Your task to perform on an android device: search for starred emails in the gmail app Image 0: 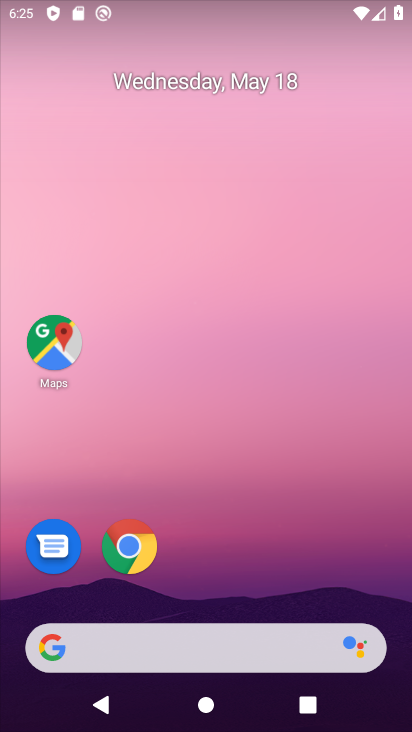
Step 0: drag from (297, 585) to (284, 128)
Your task to perform on an android device: search for starred emails in the gmail app Image 1: 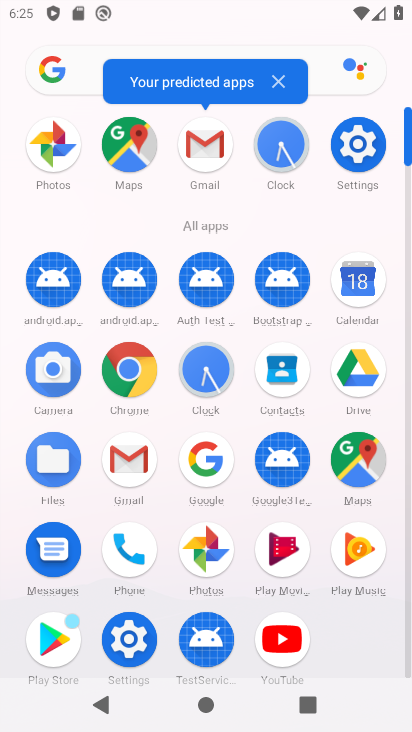
Step 1: click (129, 452)
Your task to perform on an android device: search for starred emails in the gmail app Image 2: 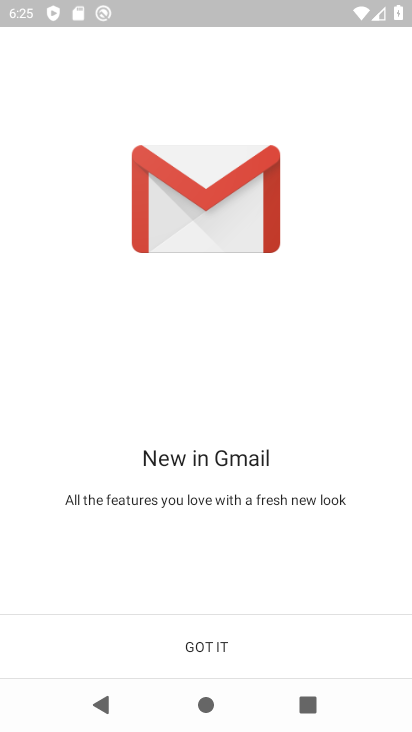
Step 2: click (244, 642)
Your task to perform on an android device: search for starred emails in the gmail app Image 3: 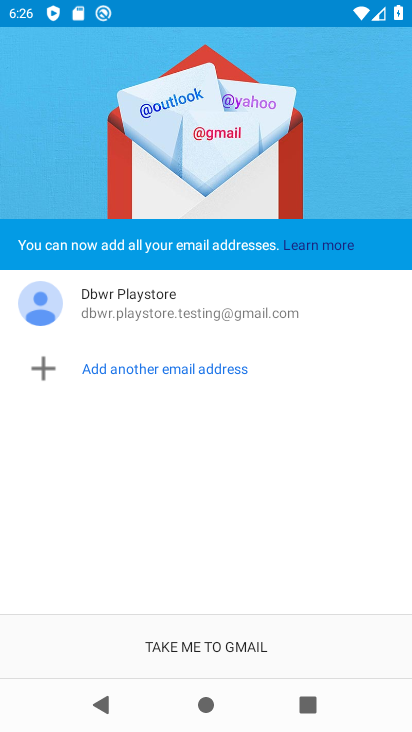
Step 3: click (244, 642)
Your task to perform on an android device: search for starred emails in the gmail app Image 4: 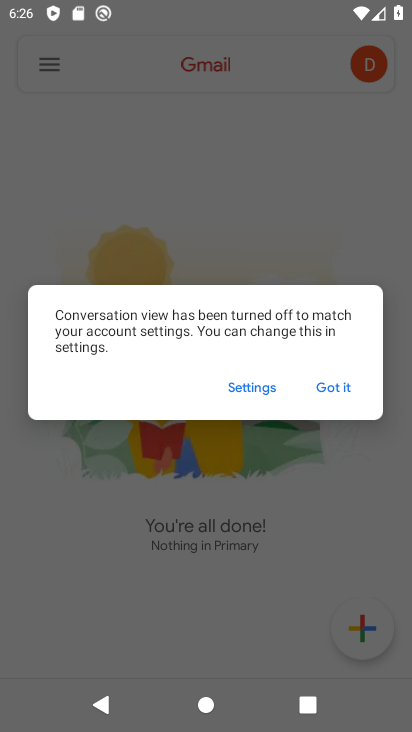
Step 4: click (363, 405)
Your task to perform on an android device: search for starred emails in the gmail app Image 5: 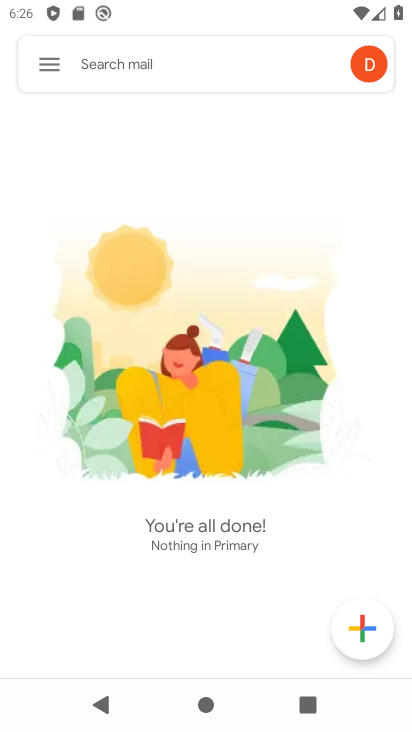
Step 5: click (54, 61)
Your task to perform on an android device: search for starred emails in the gmail app Image 6: 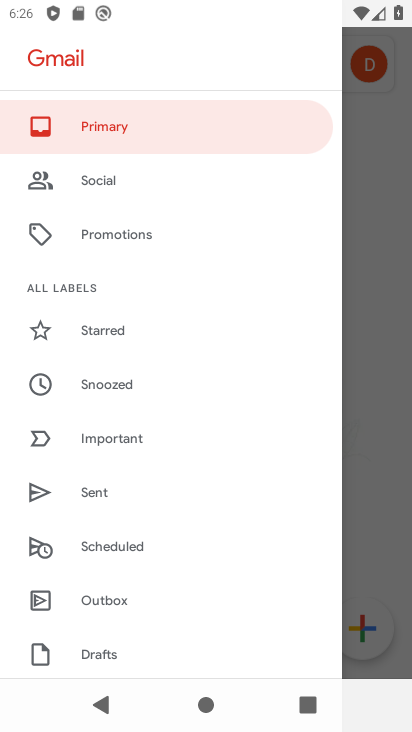
Step 6: click (129, 334)
Your task to perform on an android device: search for starred emails in the gmail app Image 7: 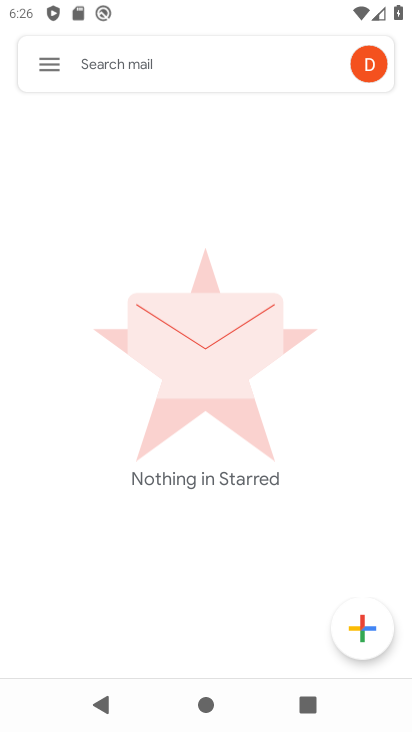
Step 7: task complete